Your task to perform on an android device: turn on wifi Image 0: 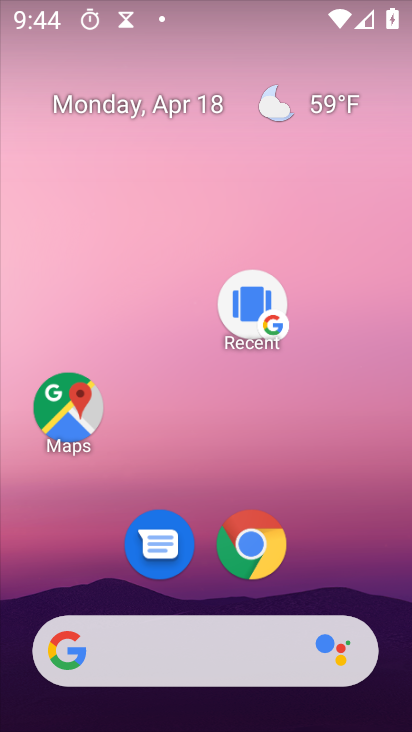
Step 0: drag from (375, 593) to (319, 191)
Your task to perform on an android device: turn on wifi Image 1: 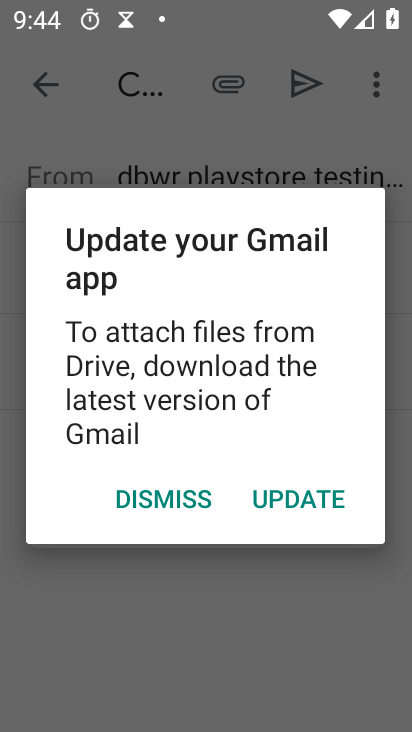
Step 1: press home button
Your task to perform on an android device: turn on wifi Image 2: 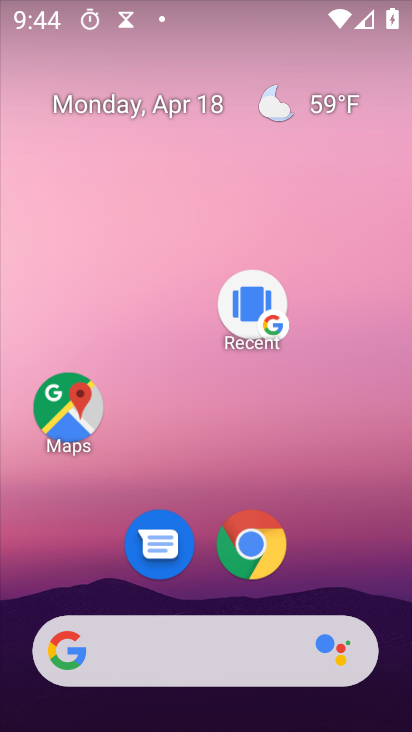
Step 2: drag from (385, 584) to (315, 93)
Your task to perform on an android device: turn on wifi Image 3: 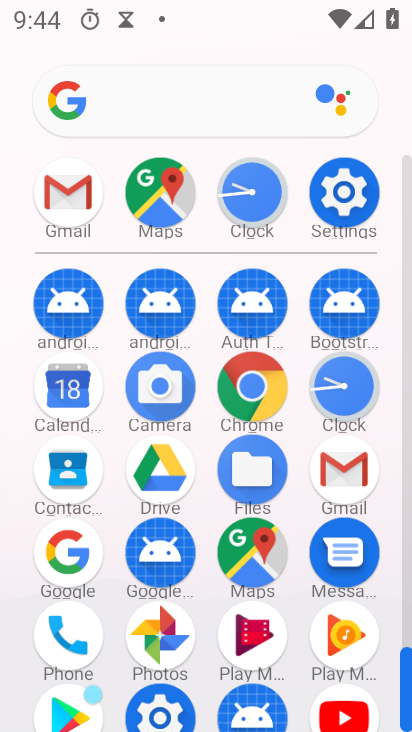
Step 3: click (336, 189)
Your task to perform on an android device: turn on wifi Image 4: 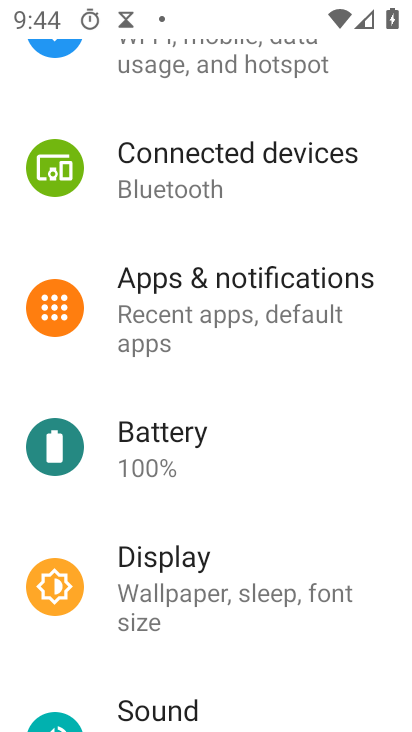
Step 4: click (273, 64)
Your task to perform on an android device: turn on wifi Image 5: 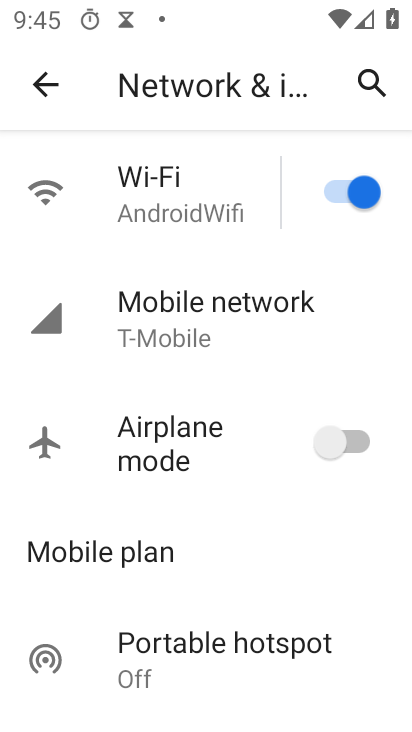
Step 5: task complete